Your task to perform on an android device: Add logitech g pro to the cart on amazon, then select checkout. Image 0: 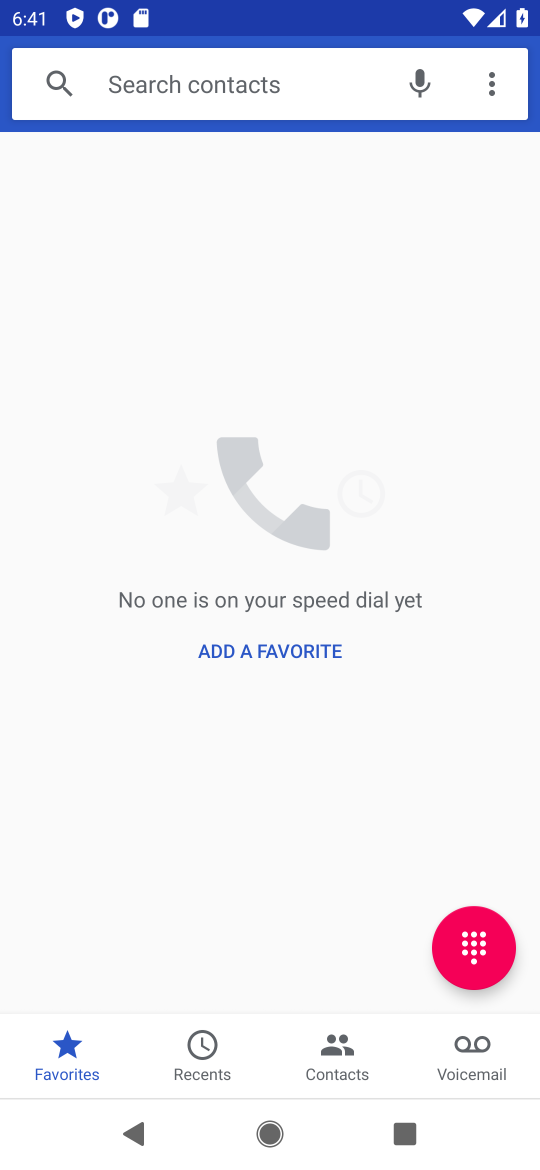
Step 0: press home button
Your task to perform on an android device: Add logitech g pro to the cart on amazon, then select checkout. Image 1: 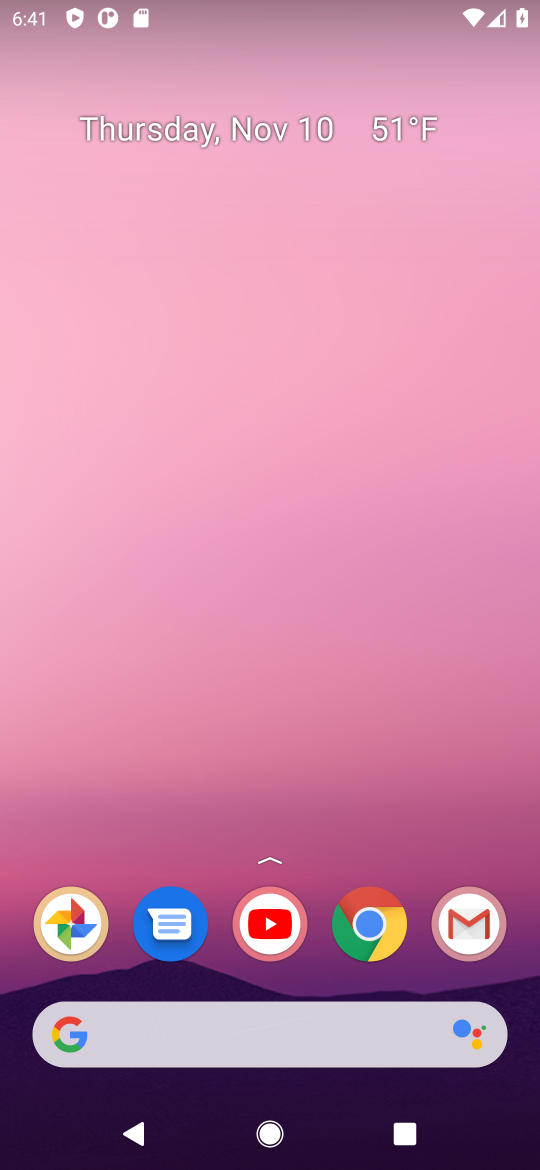
Step 1: click (378, 946)
Your task to perform on an android device: Add logitech g pro to the cart on amazon, then select checkout. Image 2: 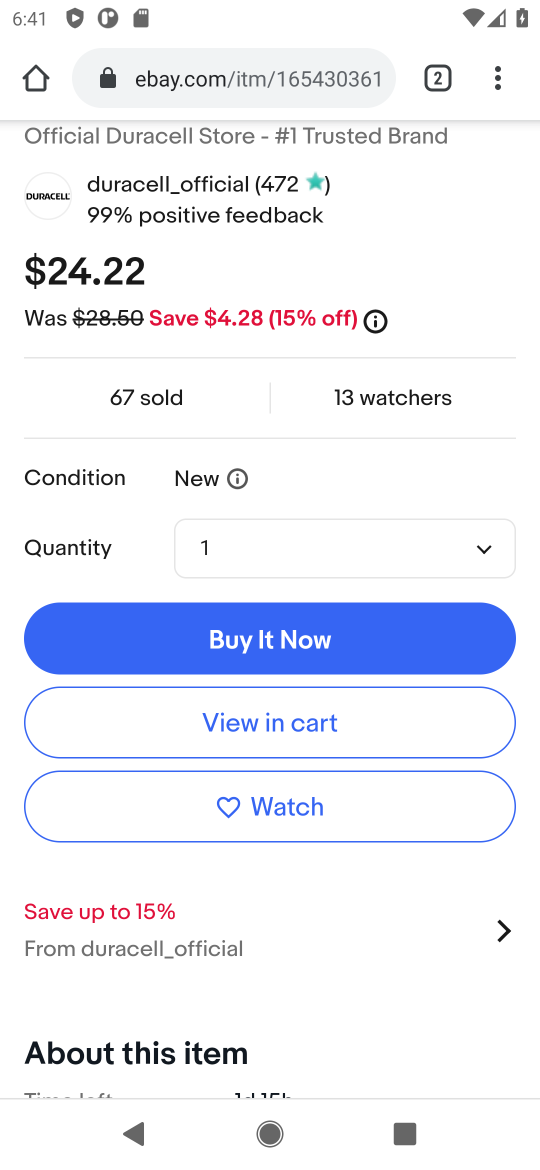
Step 2: click (206, 77)
Your task to perform on an android device: Add logitech g pro to the cart on amazon, then select checkout. Image 3: 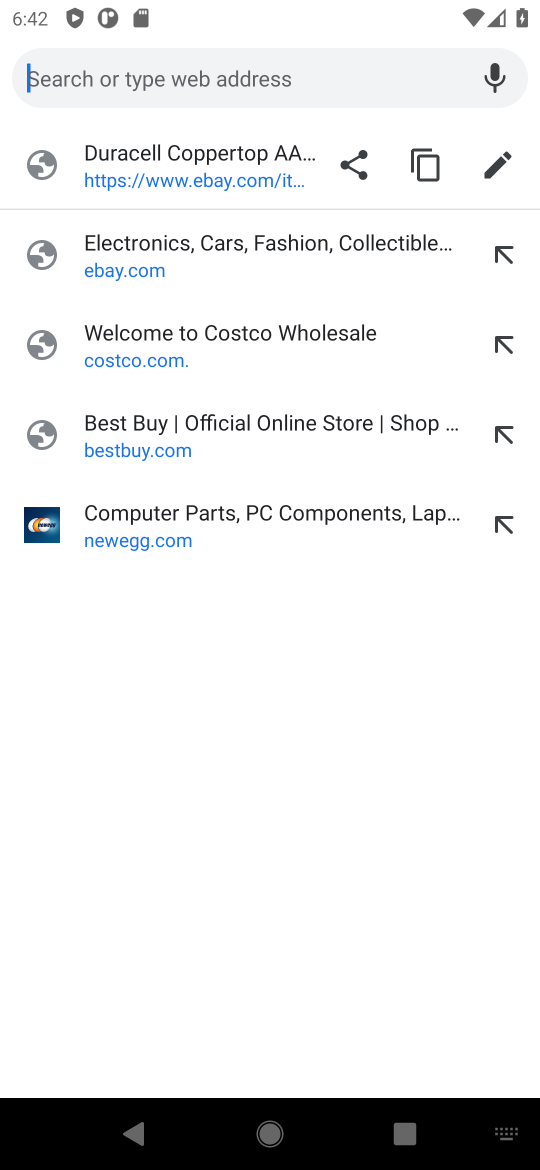
Step 3: type "amazon.com"
Your task to perform on an android device: Add logitech g pro to the cart on amazon, then select checkout. Image 4: 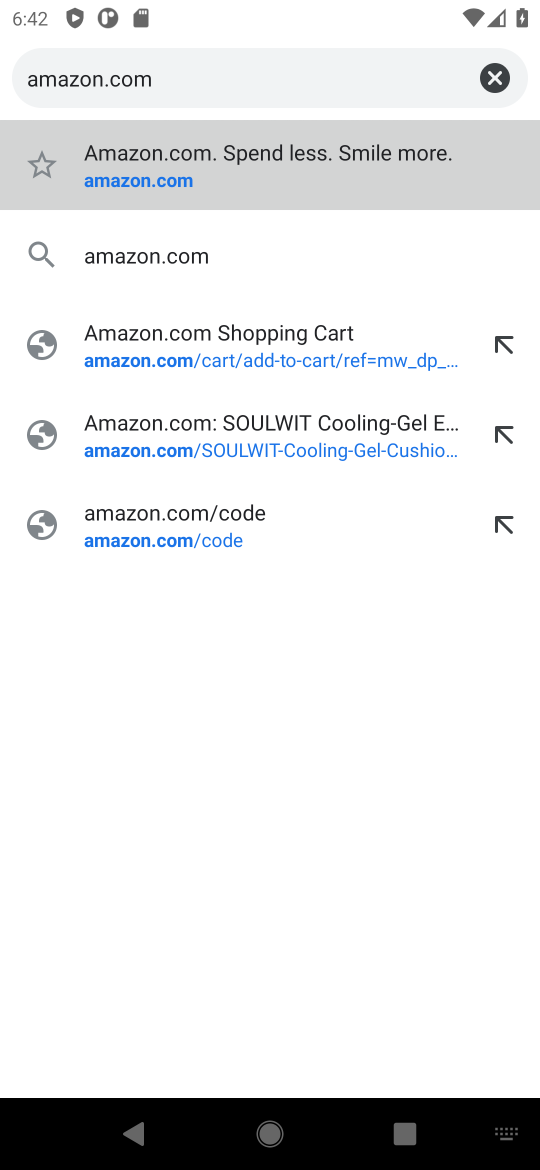
Step 4: click (147, 251)
Your task to perform on an android device: Add logitech g pro to the cart on amazon, then select checkout. Image 5: 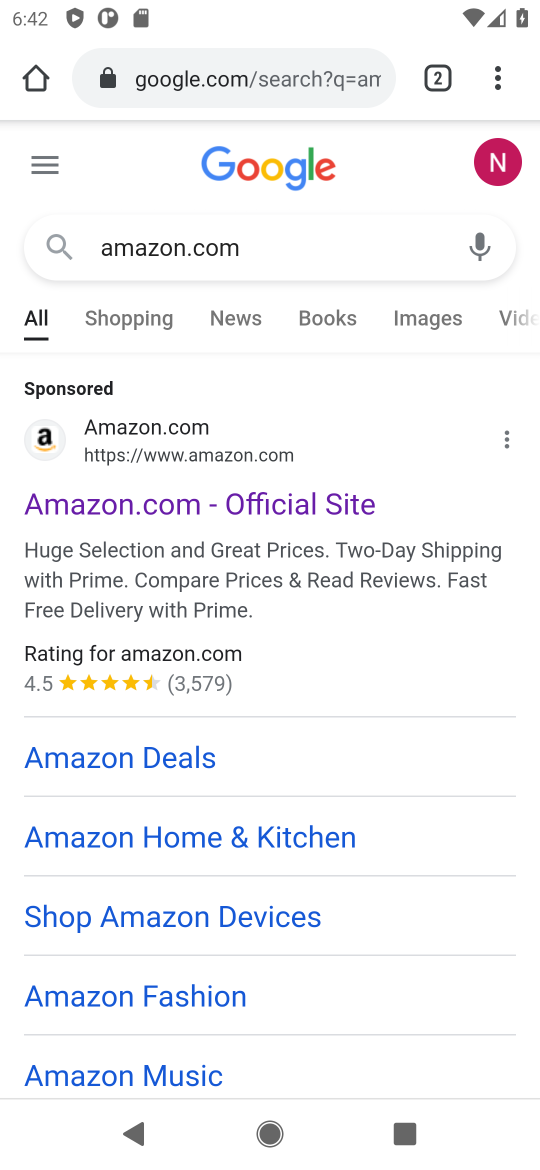
Step 5: drag from (159, 652) to (159, 373)
Your task to perform on an android device: Add logitech g pro to the cart on amazon, then select checkout. Image 6: 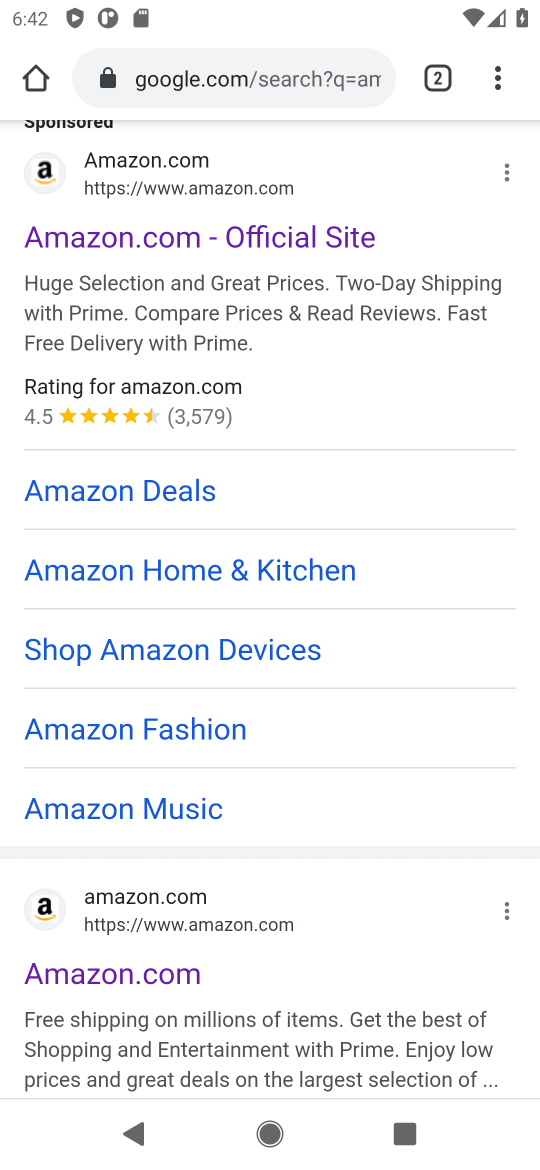
Step 6: click (141, 956)
Your task to perform on an android device: Add logitech g pro to the cart on amazon, then select checkout. Image 7: 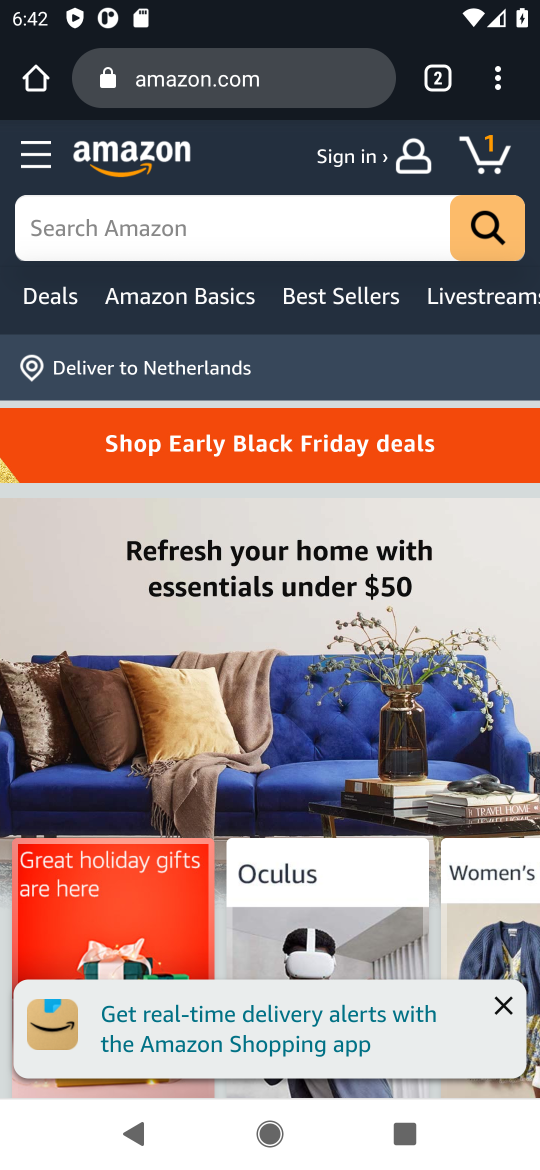
Step 7: click (96, 226)
Your task to perform on an android device: Add logitech g pro to the cart on amazon, then select checkout. Image 8: 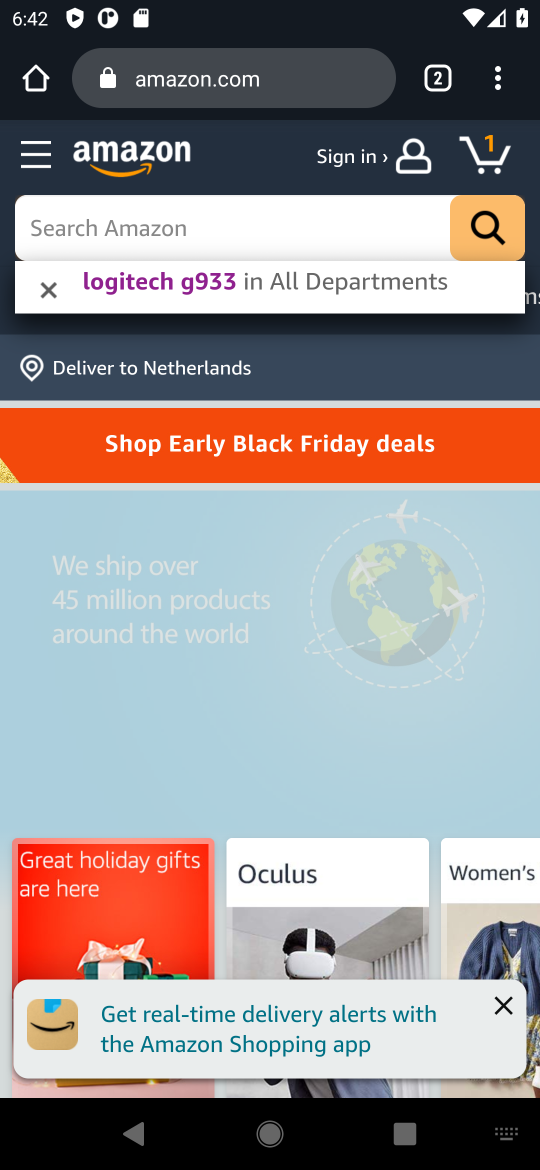
Step 8: type "logitech g pro"
Your task to perform on an android device: Add logitech g pro to the cart on amazon, then select checkout. Image 9: 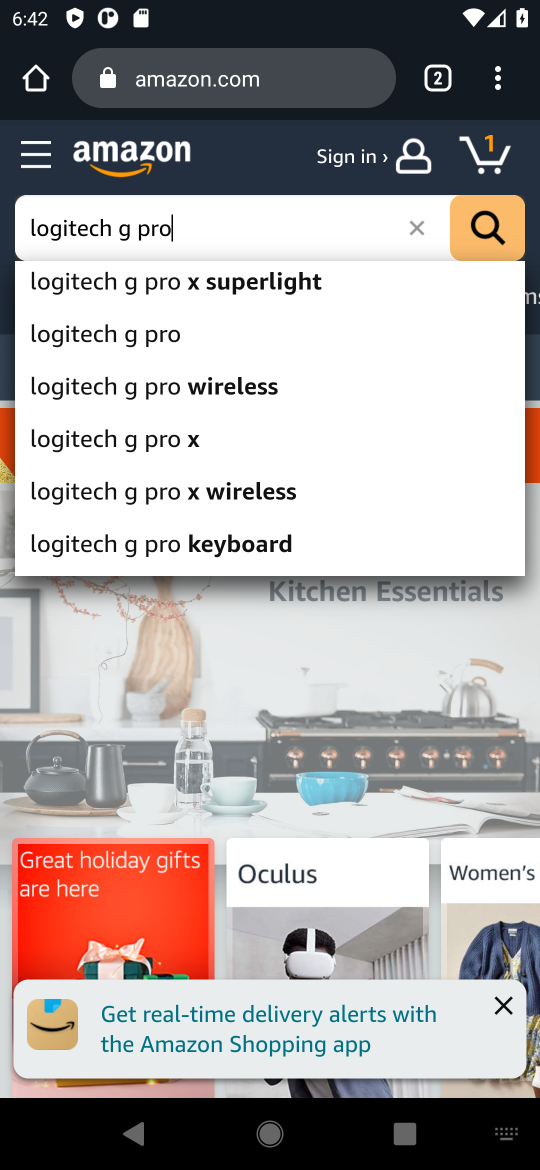
Step 9: click (135, 340)
Your task to perform on an android device: Add logitech g pro to the cart on amazon, then select checkout. Image 10: 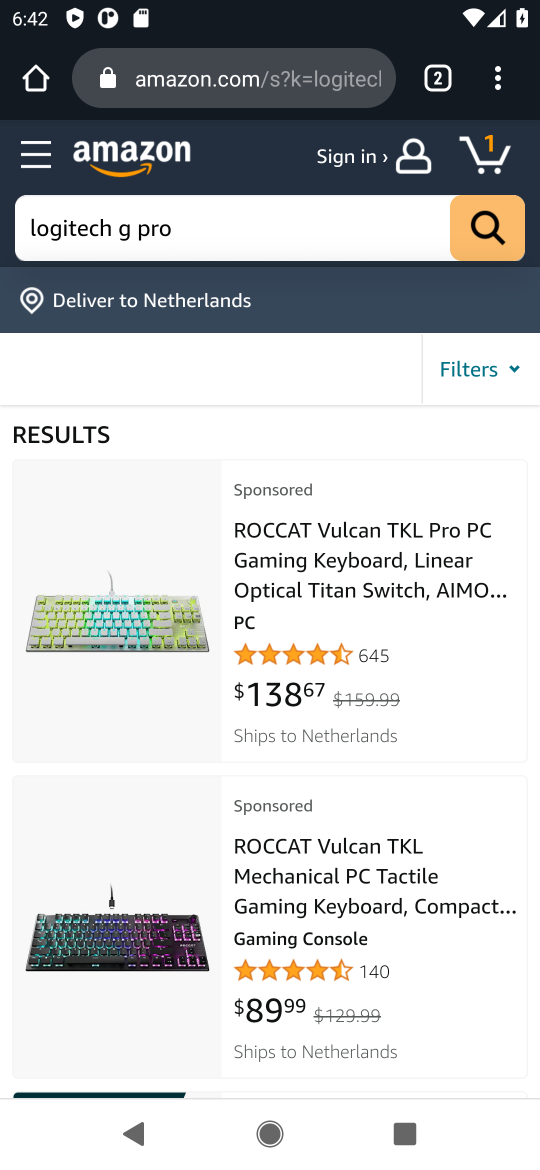
Step 10: drag from (179, 870) to (179, 413)
Your task to perform on an android device: Add logitech g pro to the cart on amazon, then select checkout. Image 11: 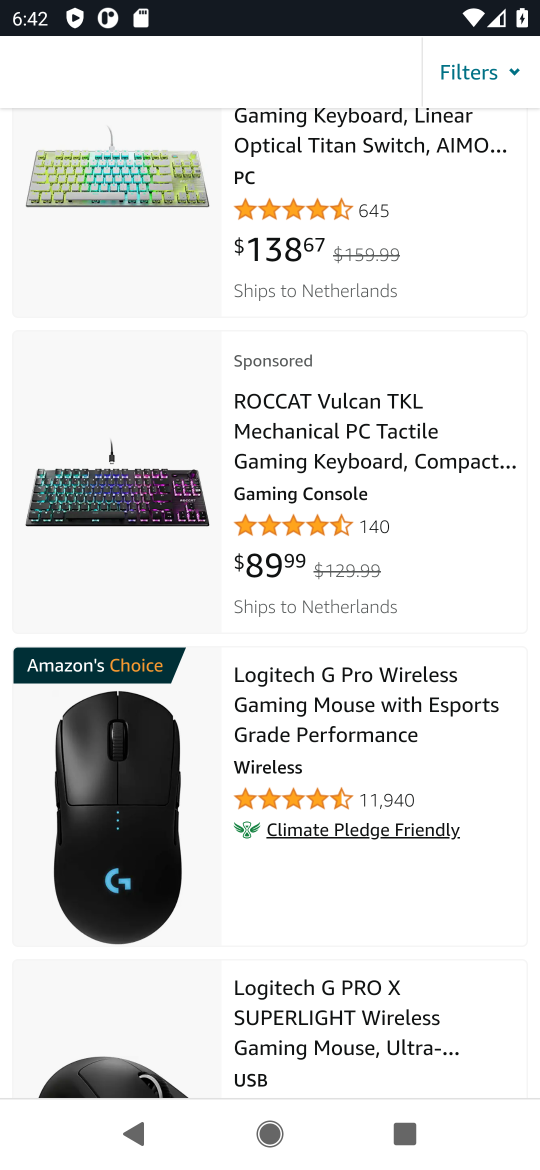
Step 11: click (293, 752)
Your task to perform on an android device: Add logitech g pro to the cart on amazon, then select checkout. Image 12: 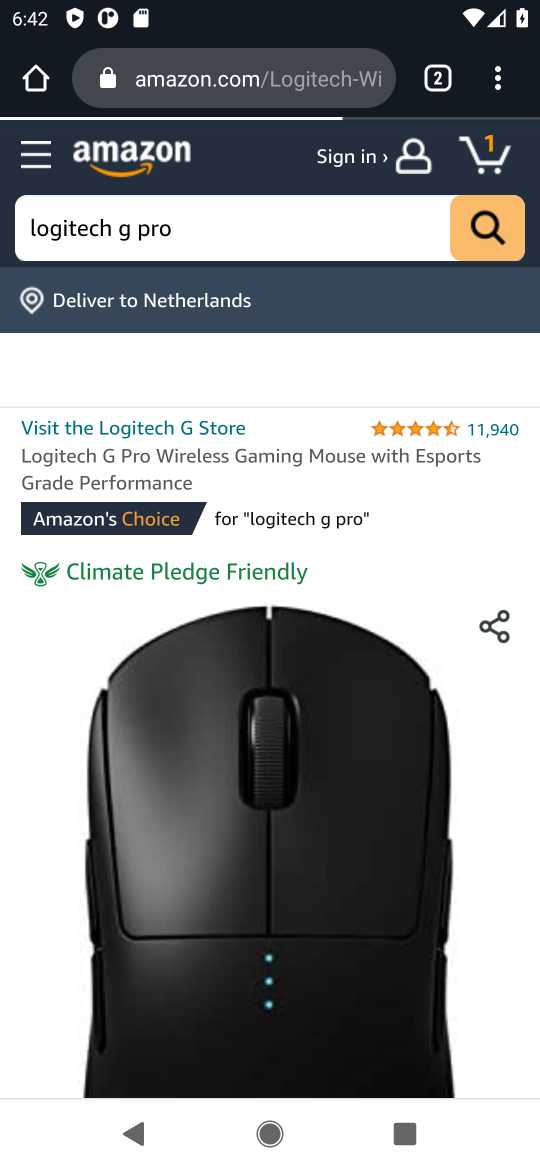
Step 12: drag from (283, 828) to (292, 415)
Your task to perform on an android device: Add logitech g pro to the cart on amazon, then select checkout. Image 13: 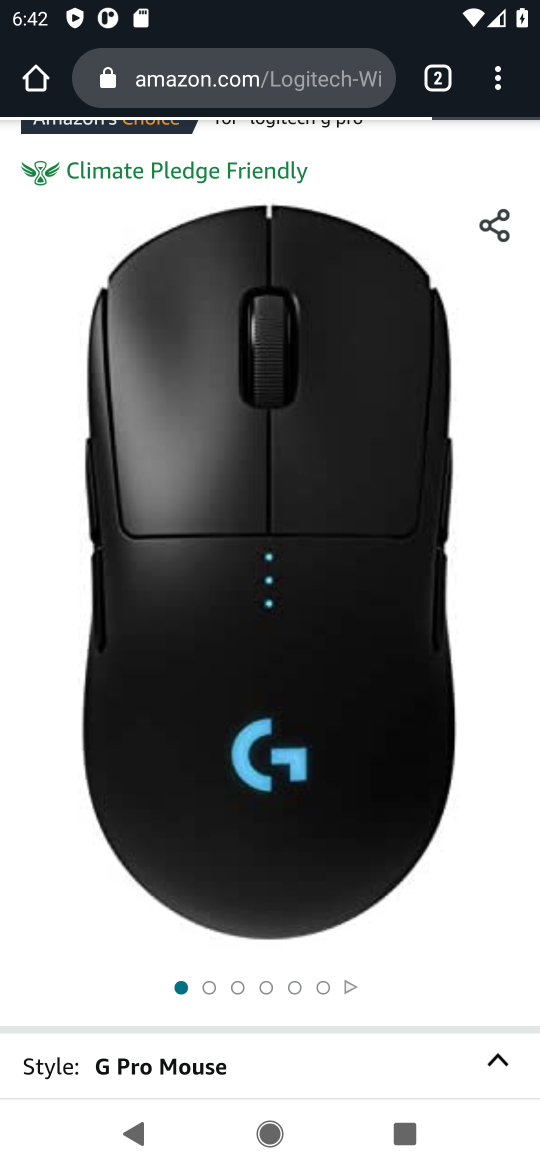
Step 13: drag from (323, 725) to (326, 296)
Your task to perform on an android device: Add logitech g pro to the cart on amazon, then select checkout. Image 14: 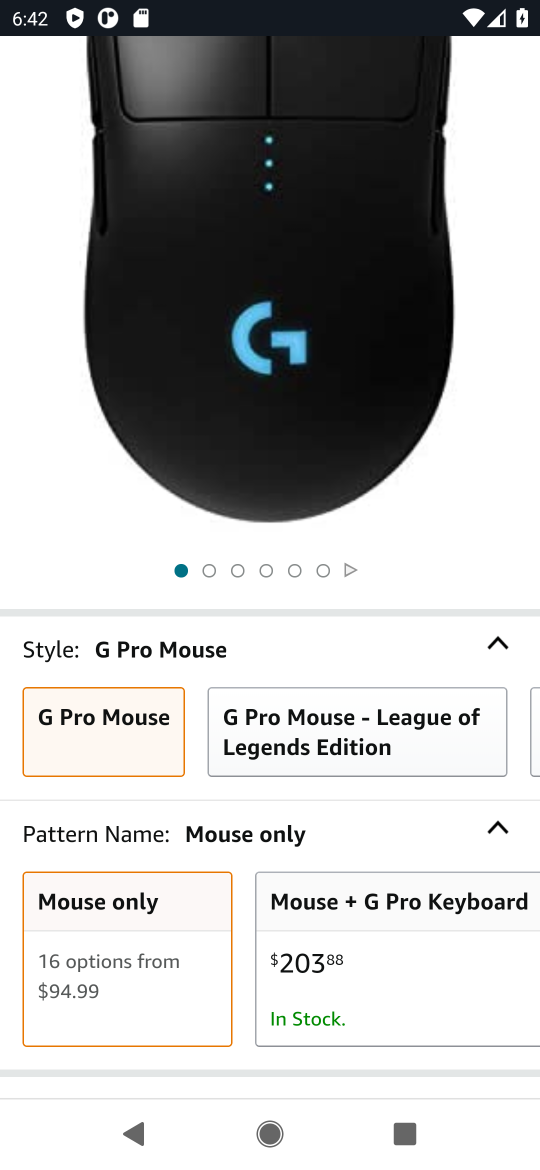
Step 14: drag from (292, 776) to (271, 354)
Your task to perform on an android device: Add logitech g pro to the cart on amazon, then select checkout. Image 15: 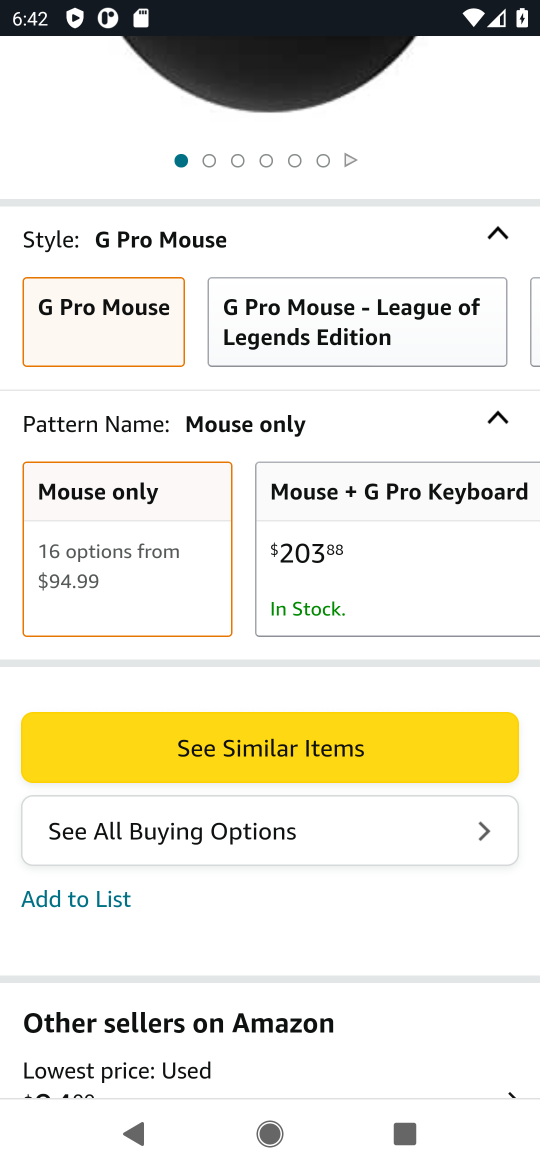
Step 15: press back button
Your task to perform on an android device: Add logitech g pro to the cart on amazon, then select checkout. Image 16: 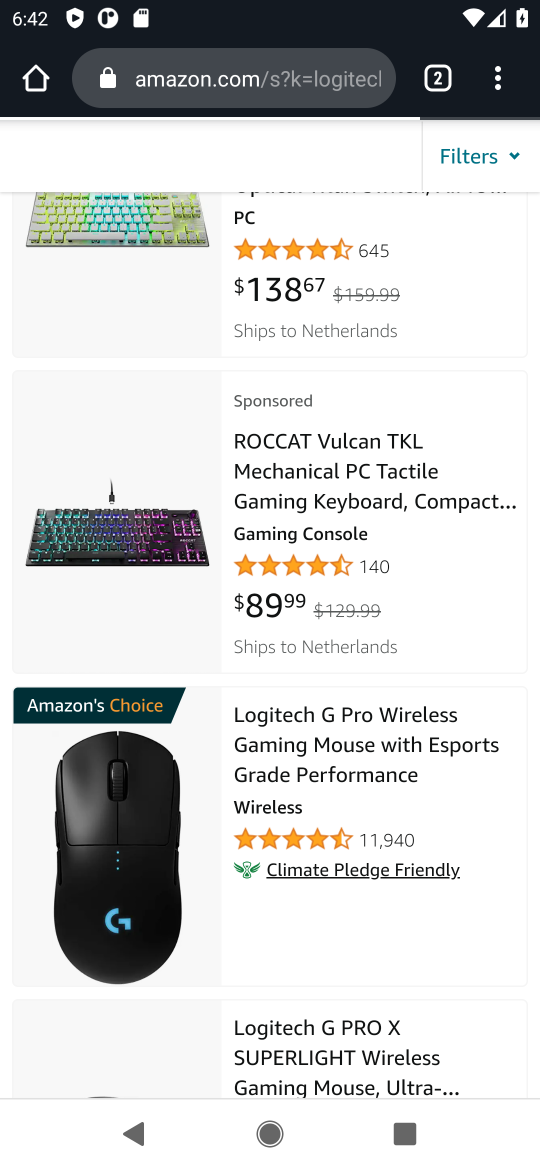
Step 16: drag from (200, 830) to (219, 388)
Your task to perform on an android device: Add logitech g pro to the cart on amazon, then select checkout. Image 17: 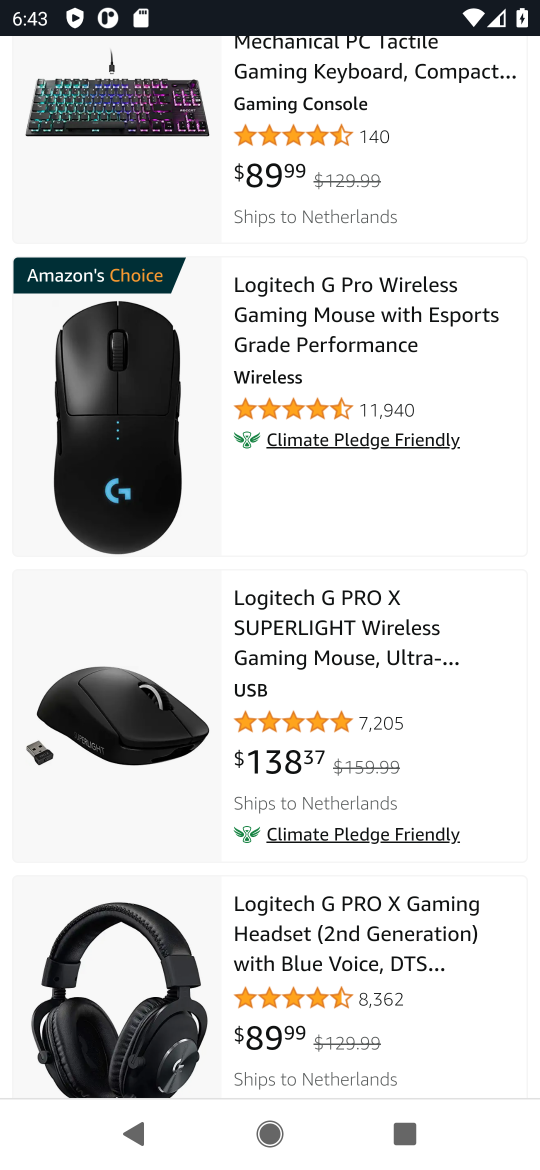
Step 17: click (160, 696)
Your task to perform on an android device: Add logitech g pro to the cart on amazon, then select checkout. Image 18: 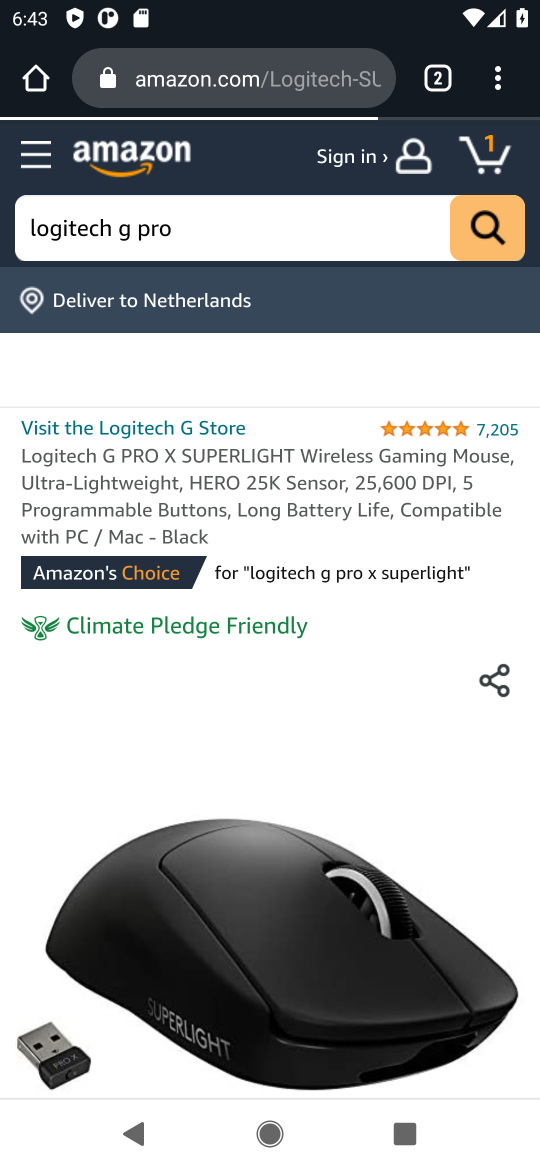
Step 18: drag from (180, 852) to (151, 329)
Your task to perform on an android device: Add logitech g pro to the cart on amazon, then select checkout. Image 19: 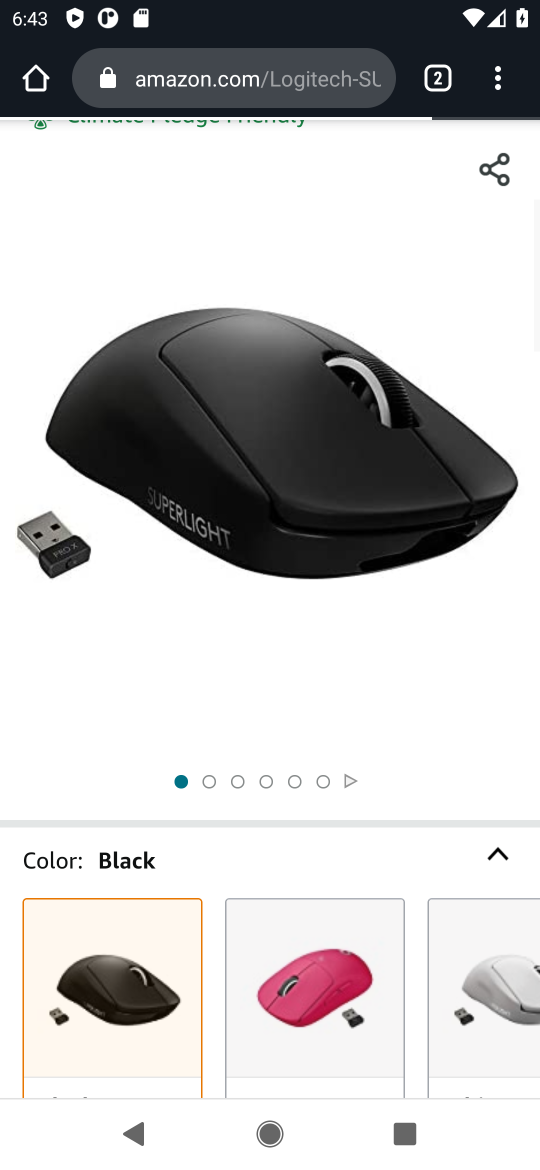
Step 19: drag from (148, 795) to (139, 382)
Your task to perform on an android device: Add logitech g pro to the cart on amazon, then select checkout. Image 20: 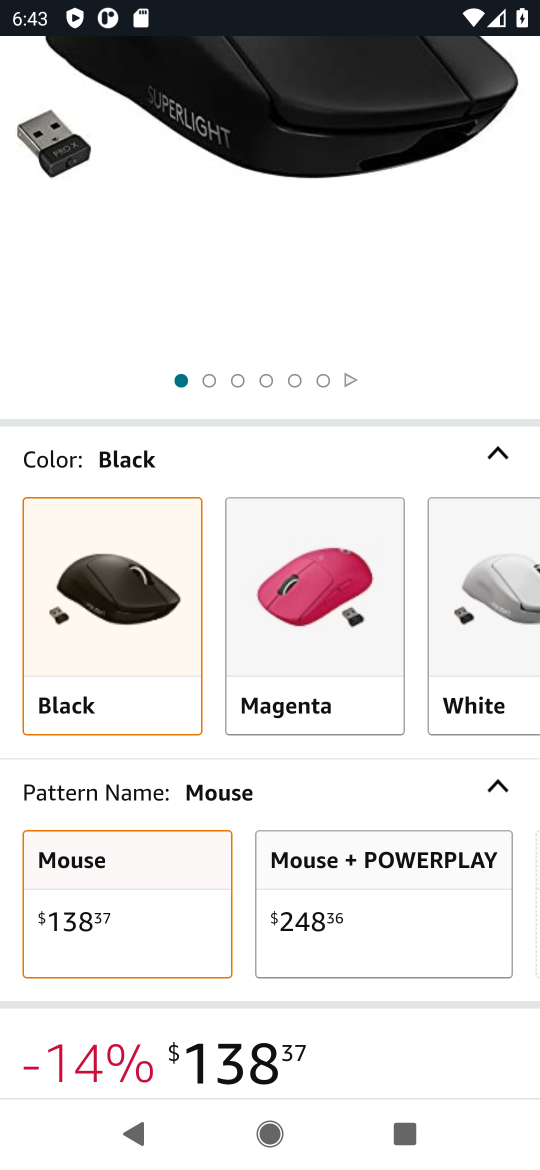
Step 20: drag from (206, 855) to (185, 371)
Your task to perform on an android device: Add logitech g pro to the cart on amazon, then select checkout. Image 21: 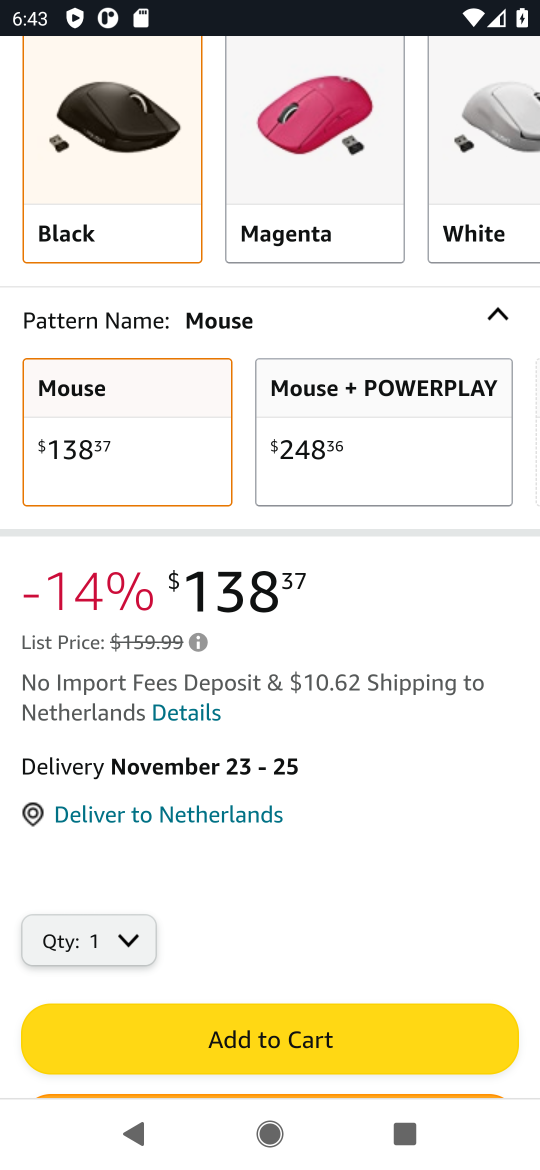
Step 21: drag from (187, 846) to (187, 472)
Your task to perform on an android device: Add logitech g pro to the cart on amazon, then select checkout. Image 22: 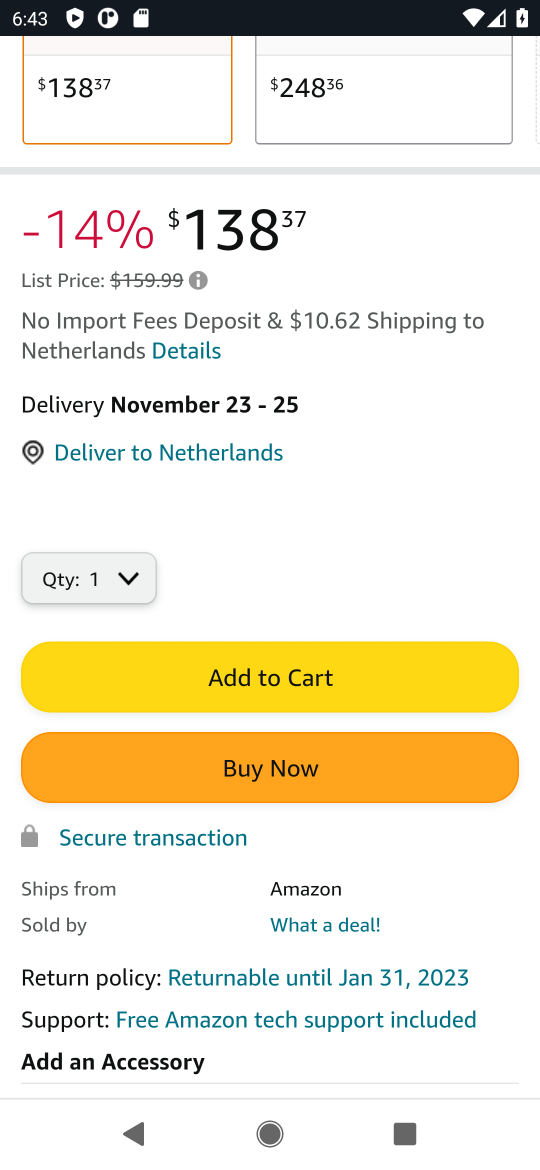
Step 22: click (238, 682)
Your task to perform on an android device: Add logitech g pro to the cart on amazon, then select checkout. Image 23: 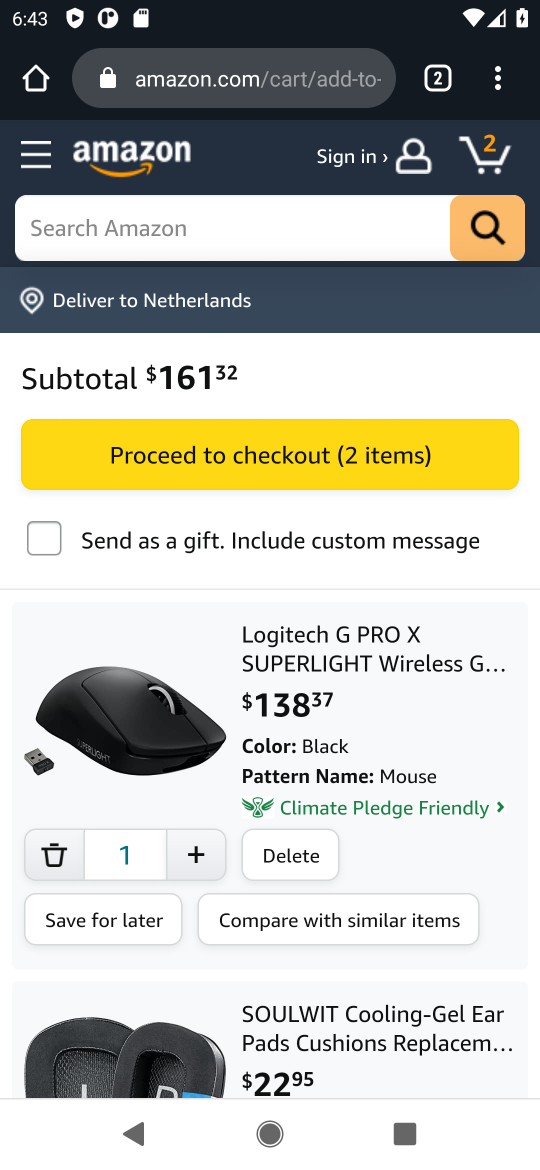
Step 23: click (232, 461)
Your task to perform on an android device: Add logitech g pro to the cart on amazon, then select checkout. Image 24: 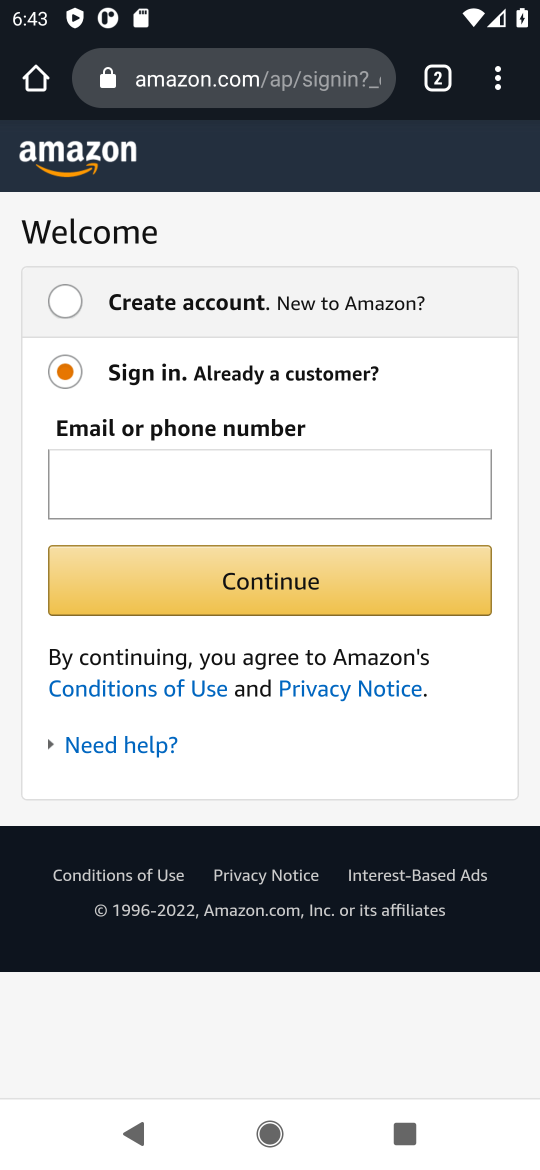
Step 24: task complete